Your task to perform on an android device: Open the web browser Image 0: 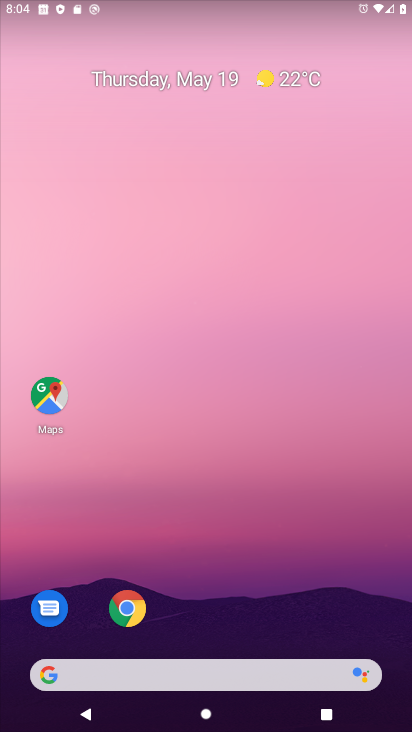
Step 0: click (117, 615)
Your task to perform on an android device: Open the web browser Image 1: 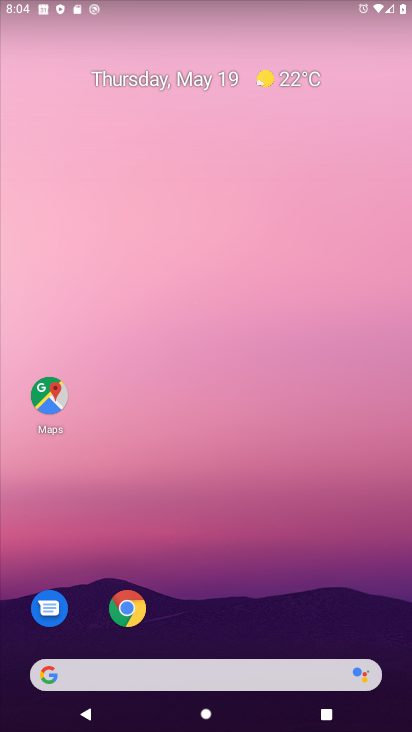
Step 1: click (117, 615)
Your task to perform on an android device: Open the web browser Image 2: 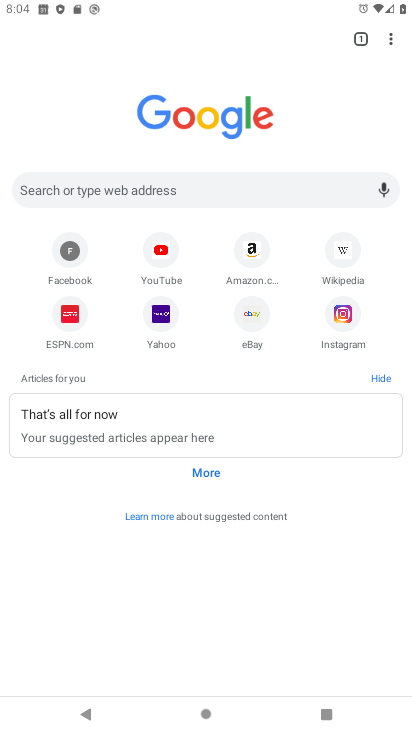
Step 2: task complete